Your task to perform on an android device: Go to eBay Image 0: 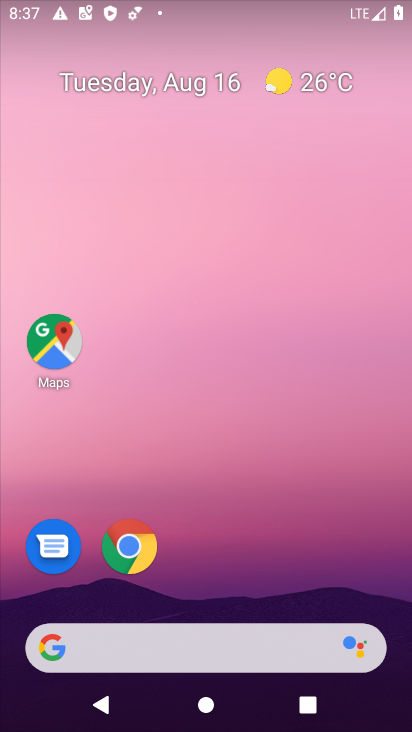
Step 0: click (224, 651)
Your task to perform on an android device: Go to eBay Image 1: 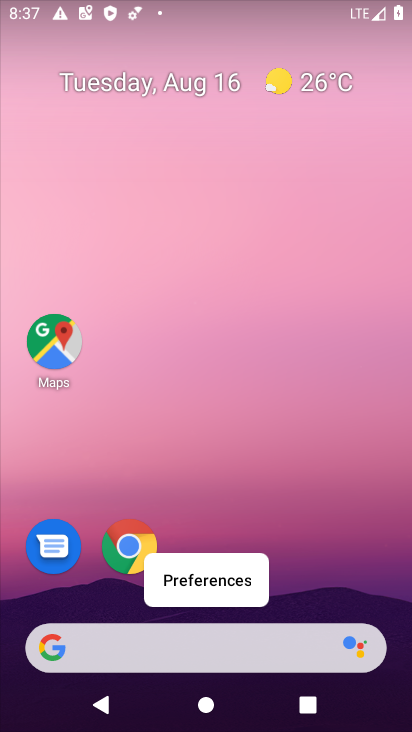
Step 1: click (225, 642)
Your task to perform on an android device: Go to eBay Image 2: 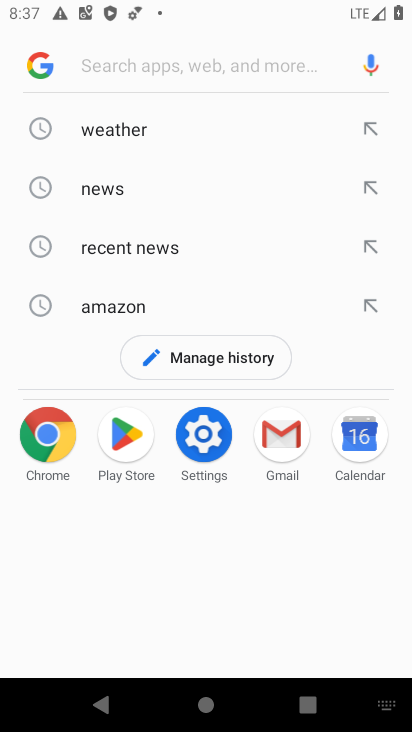
Step 2: type "ebay"
Your task to perform on an android device: Go to eBay Image 3: 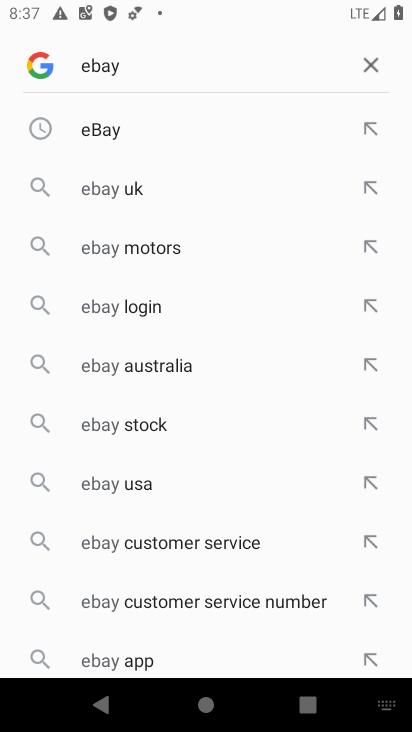
Step 3: click (115, 130)
Your task to perform on an android device: Go to eBay Image 4: 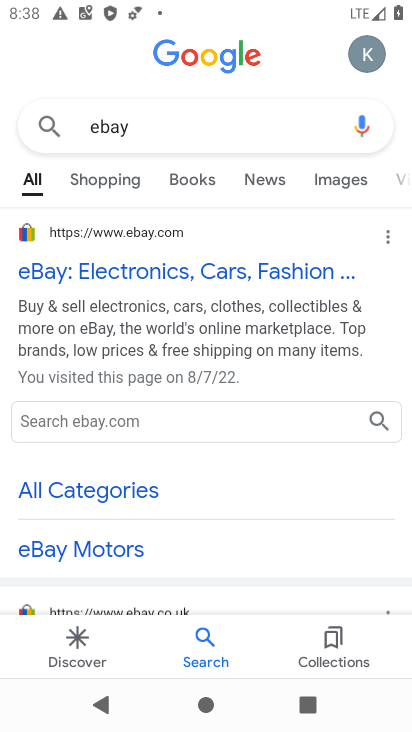
Step 4: click (57, 272)
Your task to perform on an android device: Go to eBay Image 5: 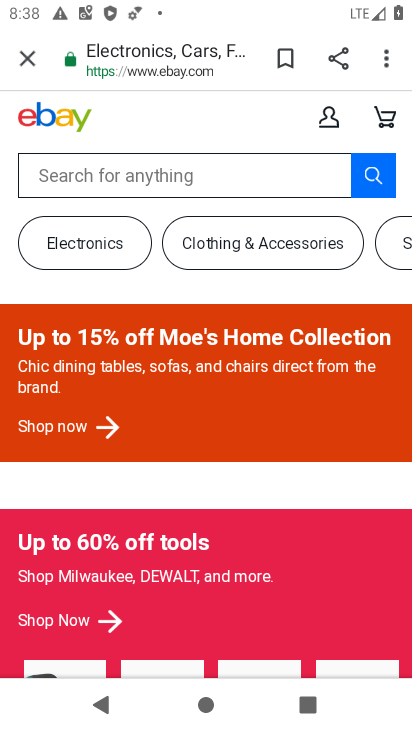
Step 5: task complete